Your task to perform on an android device: Do I have any events today? Image 0: 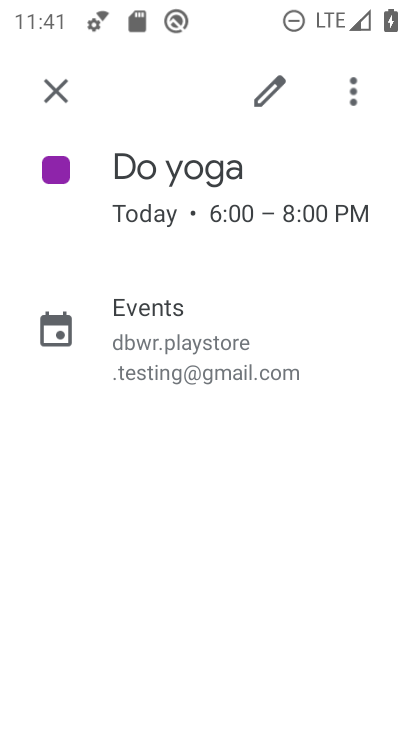
Step 0: press home button
Your task to perform on an android device: Do I have any events today? Image 1: 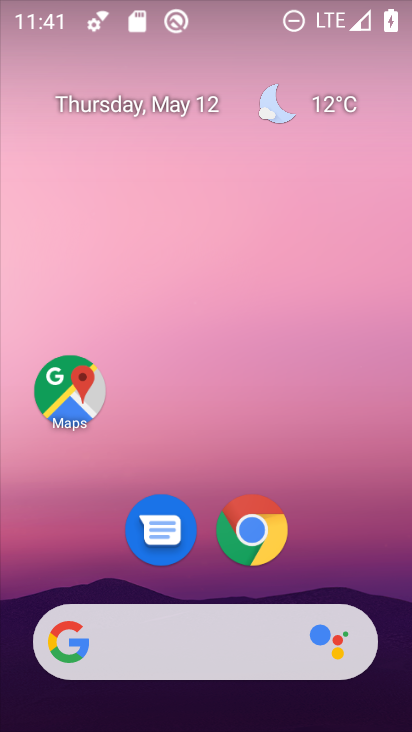
Step 1: drag from (177, 642) to (262, 290)
Your task to perform on an android device: Do I have any events today? Image 2: 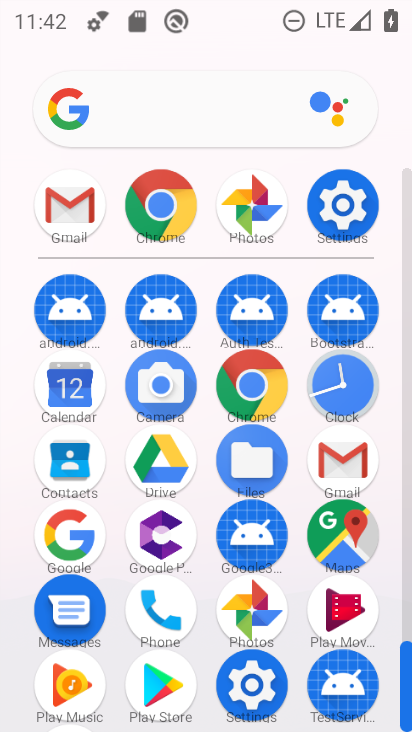
Step 2: click (77, 386)
Your task to perform on an android device: Do I have any events today? Image 3: 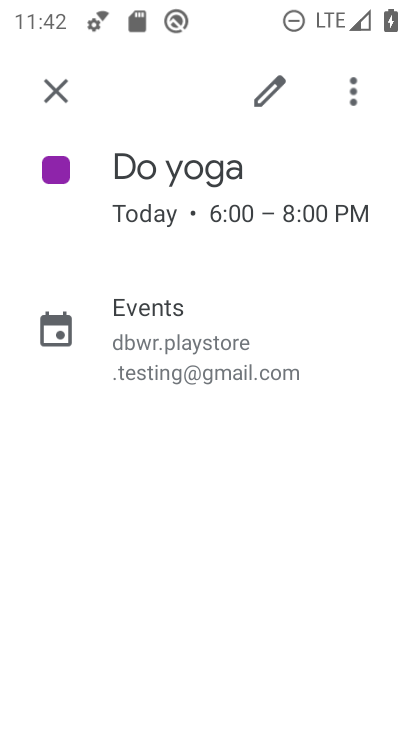
Step 3: task complete